Your task to perform on an android device: open app "Life360: Find Family & Friends" (install if not already installed), go to login, and select forgot password Image 0: 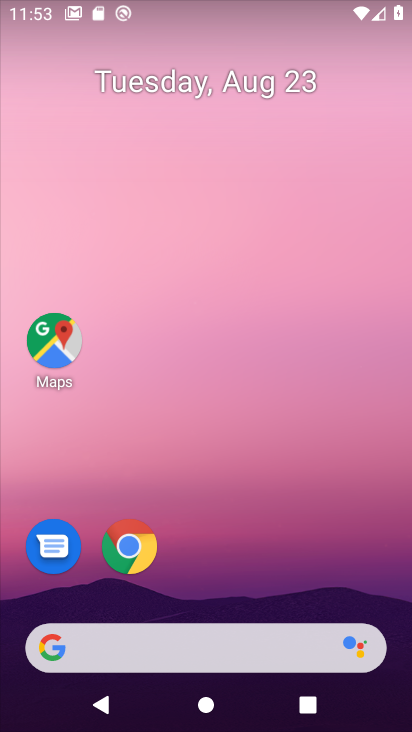
Step 0: drag from (239, 607) to (245, 161)
Your task to perform on an android device: open app "Life360: Find Family & Friends" (install if not already installed), go to login, and select forgot password Image 1: 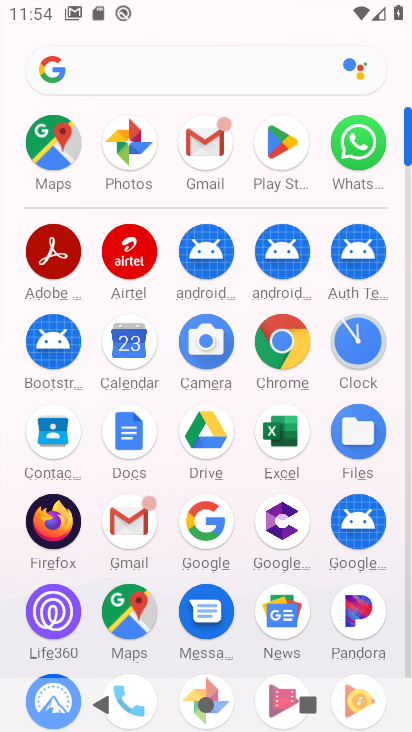
Step 1: click (277, 140)
Your task to perform on an android device: open app "Life360: Find Family & Friends" (install if not already installed), go to login, and select forgot password Image 2: 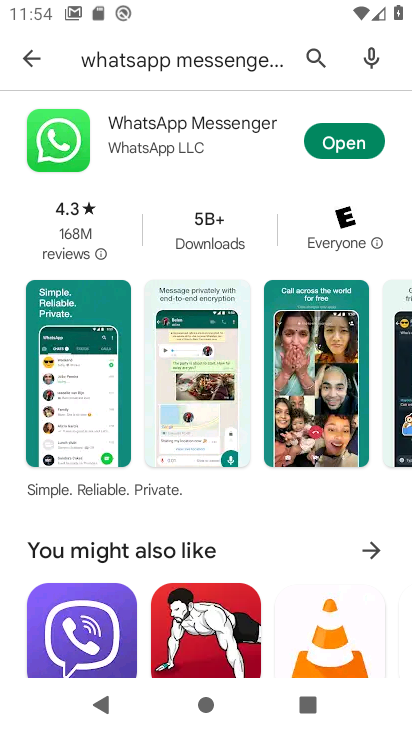
Step 2: click (26, 54)
Your task to perform on an android device: open app "Life360: Find Family & Friends" (install if not already installed), go to login, and select forgot password Image 3: 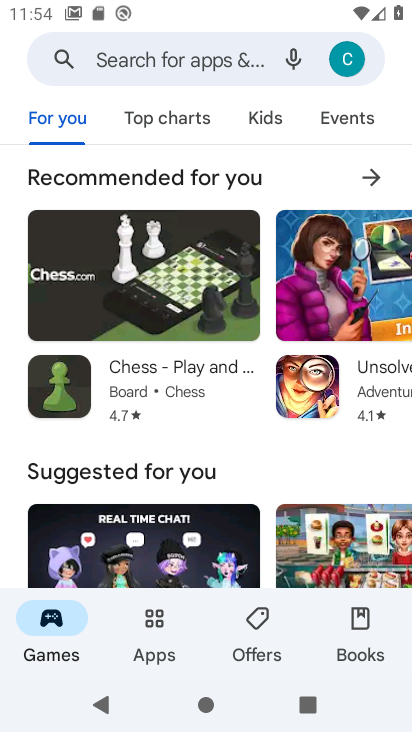
Step 3: click (158, 43)
Your task to perform on an android device: open app "Life360: Find Family & Friends" (install if not already installed), go to login, and select forgot password Image 4: 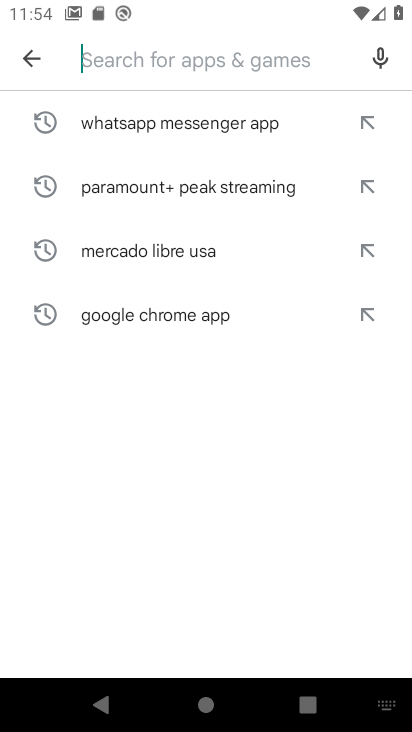
Step 4: type "Life360: Find Family & Friends "
Your task to perform on an android device: open app "Life360: Find Family & Friends" (install if not already installed), go to login, and select forgot password Image 5: 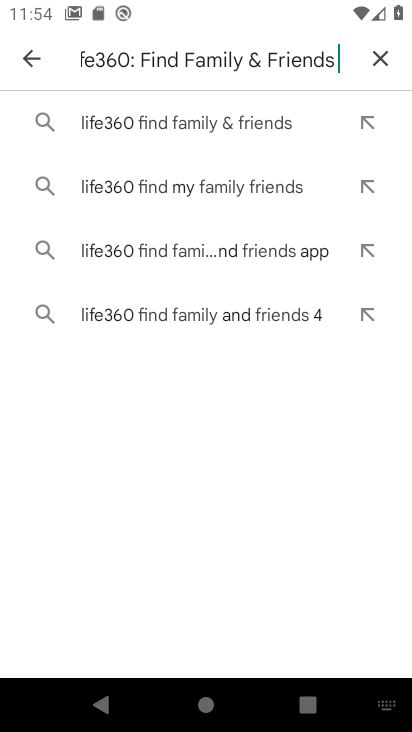
Step 5: click (151, 124)
Your task to perform on an android device: open app "Life360: Find Family & Friends" (install if not already installed), go to login, and select forgot password Image 6: 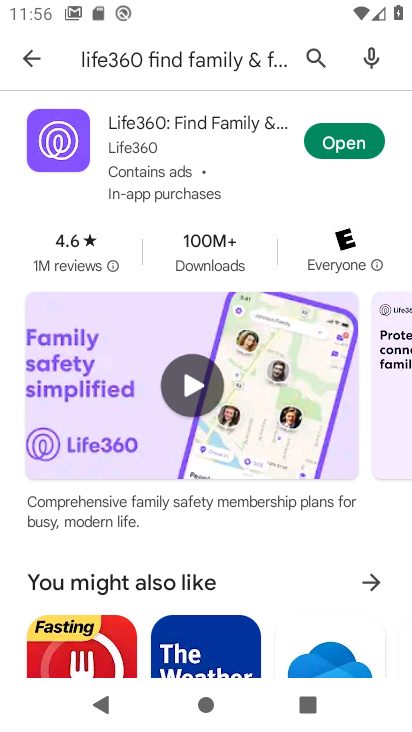
Step 6: task complete